Your task to perform on an android device: Find coffee shops on Maps Image 0: 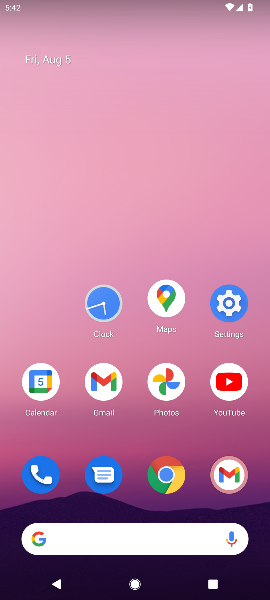
Step 0: click (177, 293)
Your task to perform on an android device: Find coffee shops on Maps Image 1: 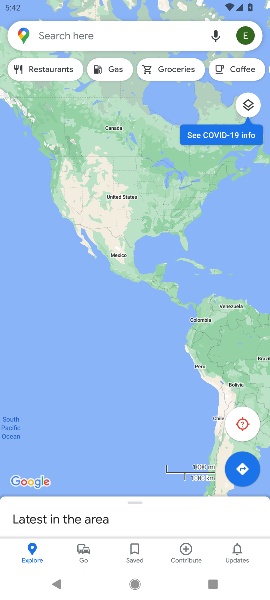
Step 1: click (87, 37)
Your task to perform on an android device: Find coffee shops on Maps Image 2: 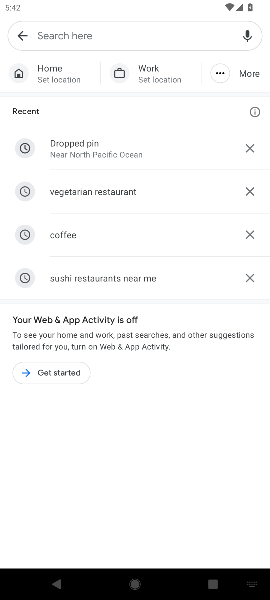
Step 2: type "coffee shops"
Your task to perform on an android device: Find coffee shops on Maps Image 3: 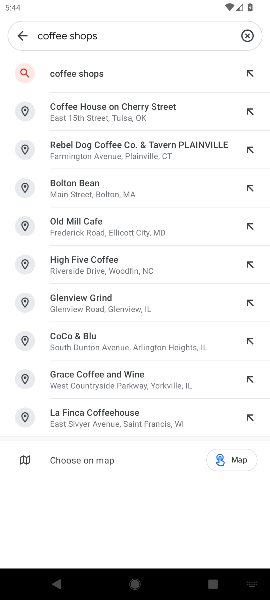
Step 3: click (108, 67)
Your task to perform on an android device: Find coffee shops on Maps Image 4: 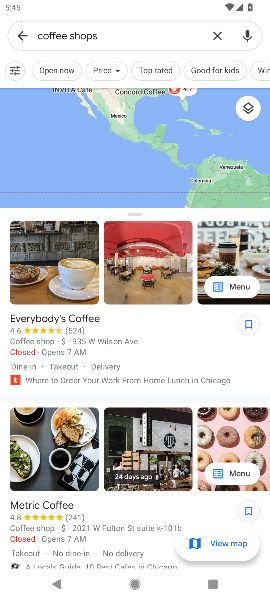
Step 4: task complete